Your task to perform on an android device: What's the weather? Image 0: 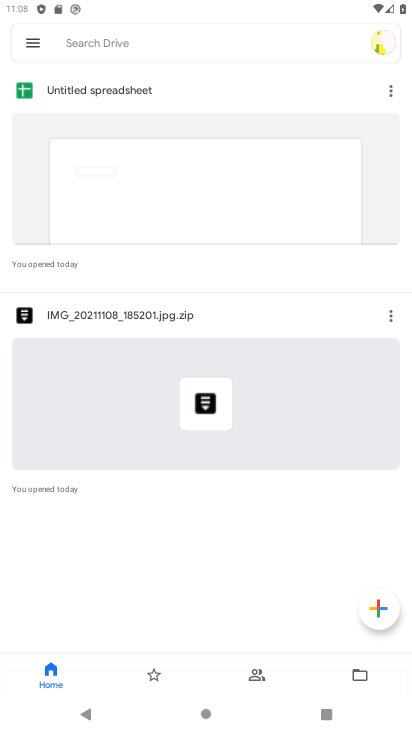
Step 0: press home button
Your task to perform on an android device: What's the weather? Image 1: 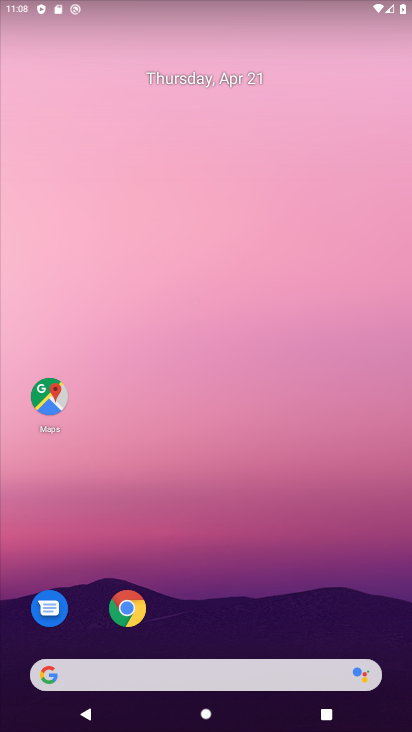
Step 1: drag from (124, 651) to (183, 285)
Your task to perform on an android device: What's the weather? Image 2: 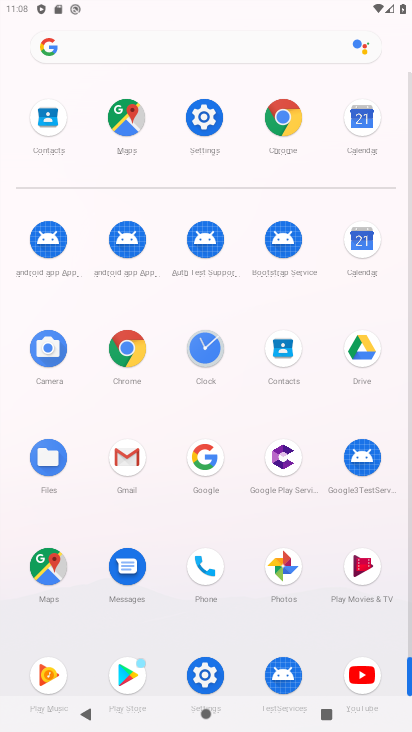
Step 2: click (208, 464)
Your task to perform on an android device: What's the weather? Image 3: 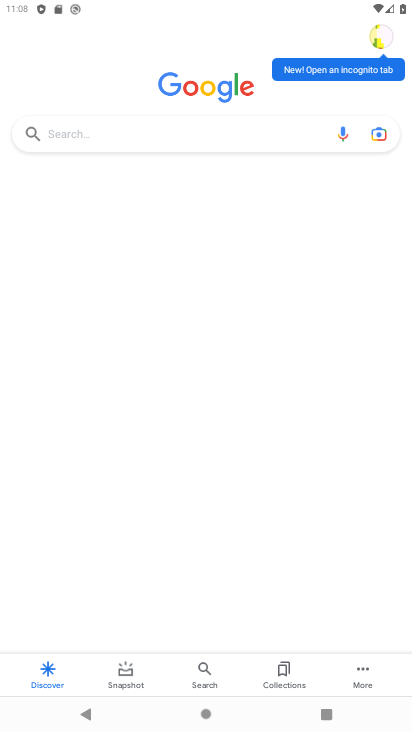
Step 3: click (148, 140)
Your task to perform on an android device: What's the weather? Image 4: 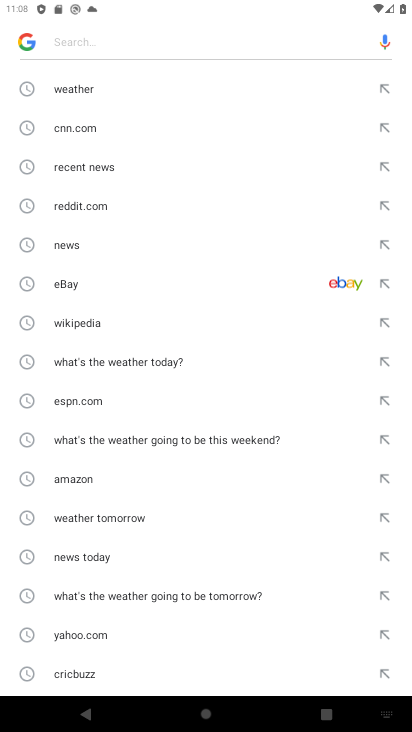
Step 4: type "weather"
Your task to perform on an android device: What's the weather? Image 5: 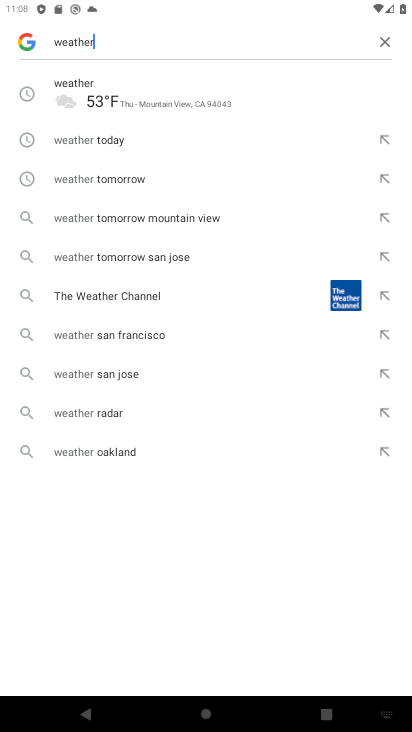
Step 5: click (96, 99)
Your task to perform on an android device: What's the weather? Image 6: 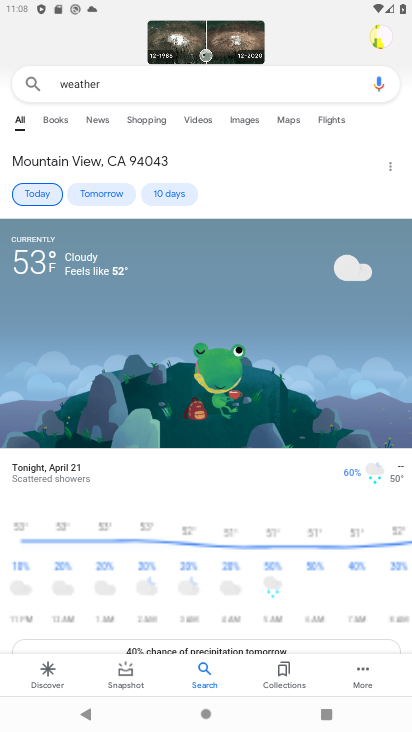
Step 6: task complete